Your task to perform on an android device: see tabs open on other devices in the chrome app Image 0: 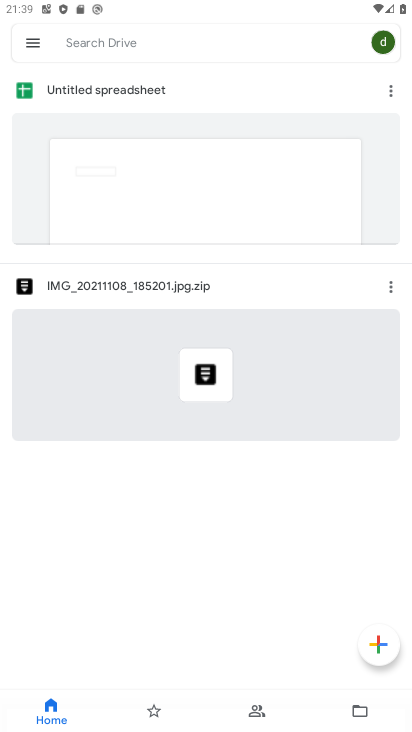
Step 0: press home button
Your task to perform on an android device: see tabs open on other devices in the chrome app Image 1: 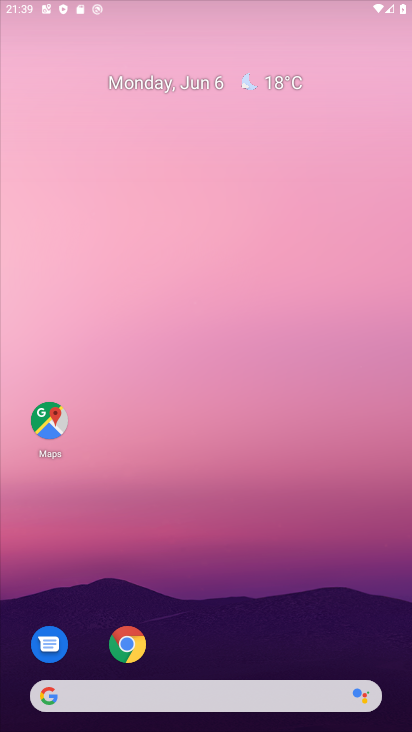
Step 1: drag from (380, 594) to (344, 245)
Your task to perform on an android device: see tabs open on other devices in the chrome app Image 2: 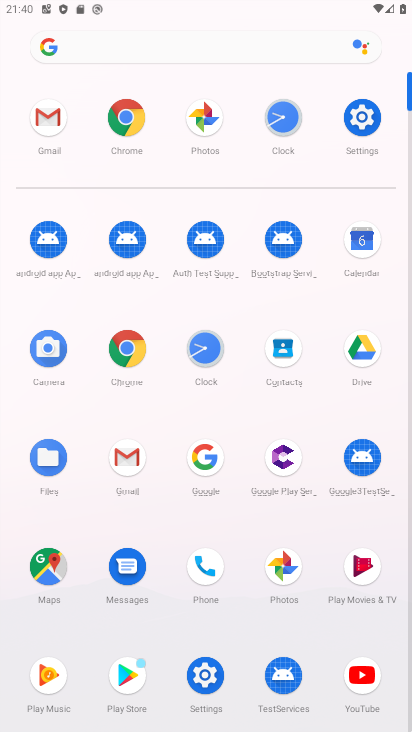
Step 2: click (137, 352)
Your task to perform on an android device: see tabs open on other devices in the chrome app Image 3: 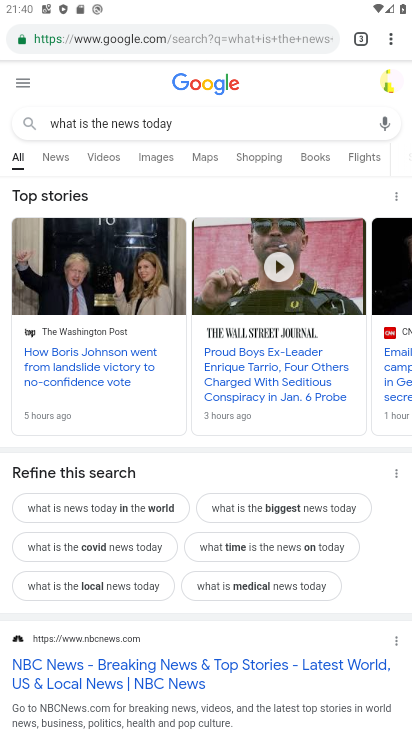
Step 3: drag from (395, 39) to (289, 439)
Your task to perform on an android device: see tabs open on other devices in the chrome app Image 4: 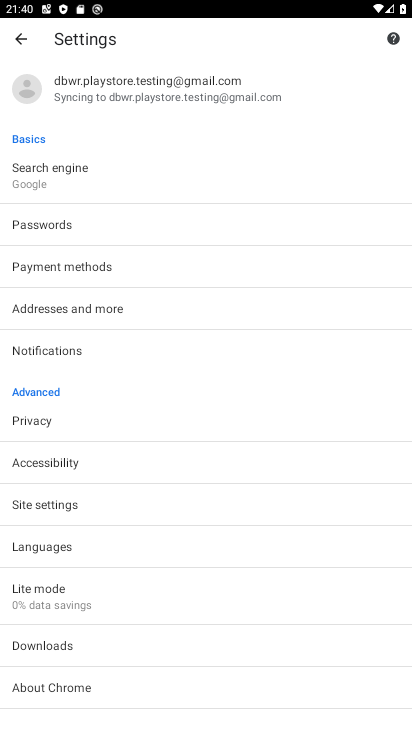
Step 4: click (24, 39)
Your task to perform on an android device: see tabs open on other devices in the chrome app Image 5: 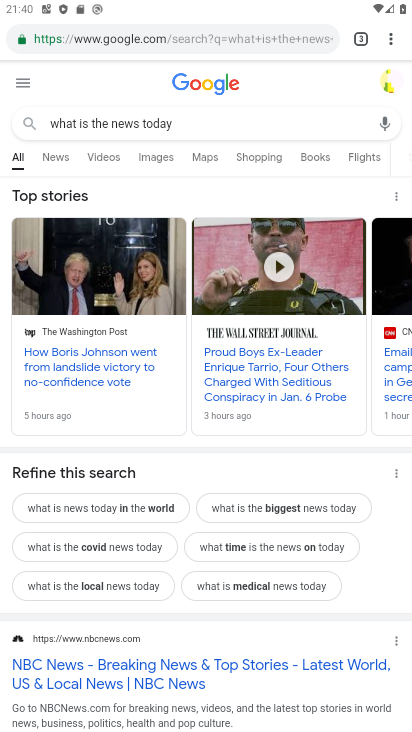
Step 5: click (358, 47)
Your task to perform on an android device: see tabs open on other devices in the chrome app Image 6: 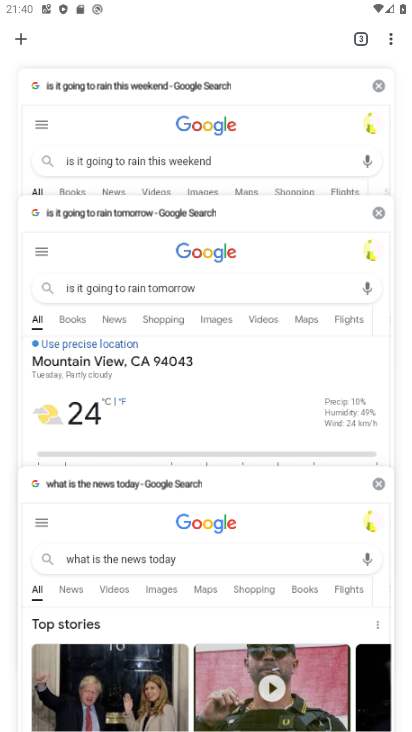
Step 6: task complete